Your task to perform on an android device: set an alarm Image 0: 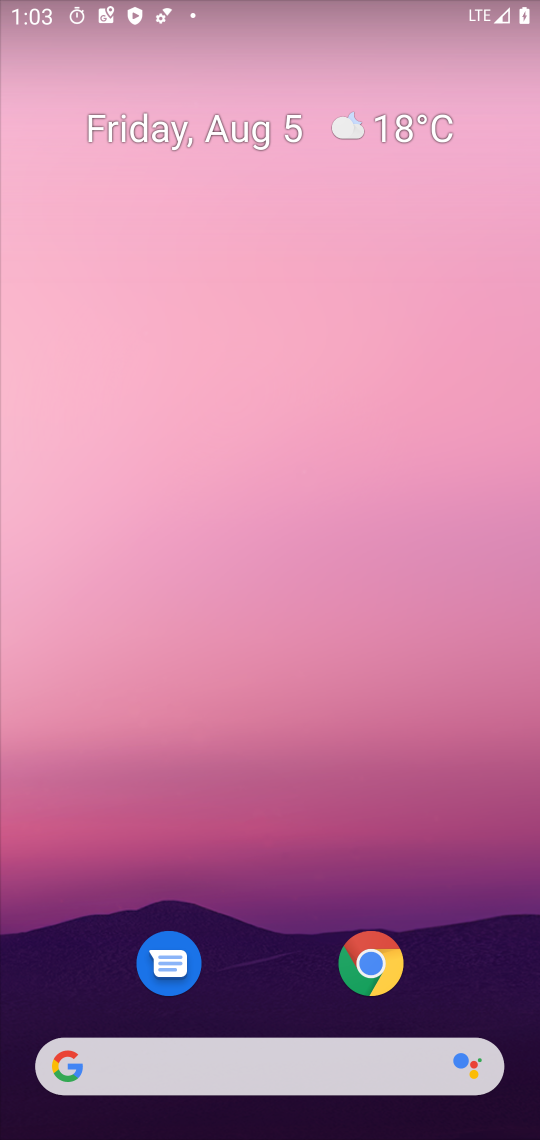
Step 0: drag from (248, 969) to (457, 0)
Your task to perform on an android device: set an alarm Image 1: 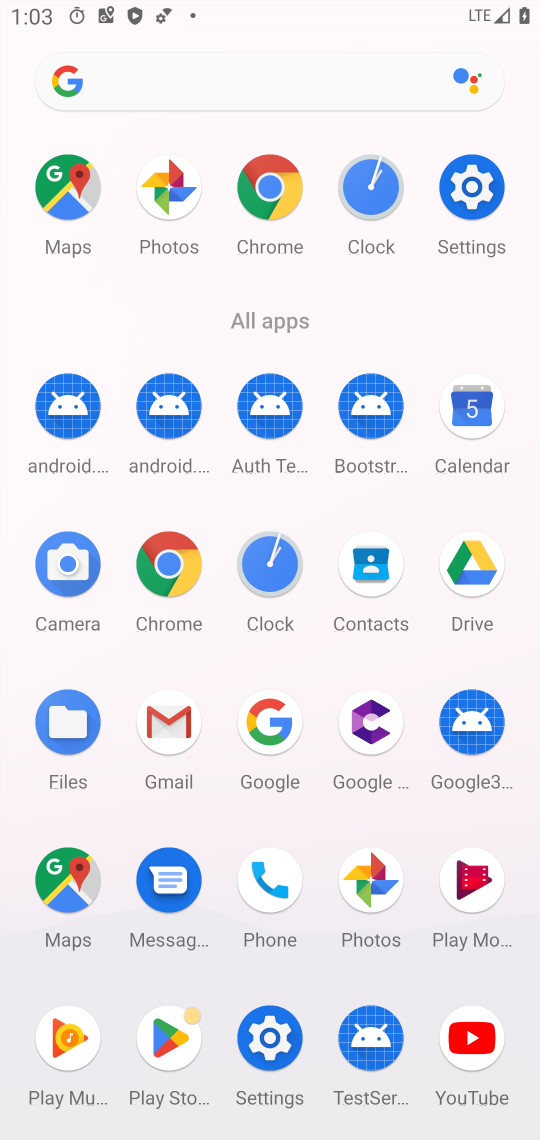
Step 1: press home button
Your task to perform on an android device: set an alarm Image 2: 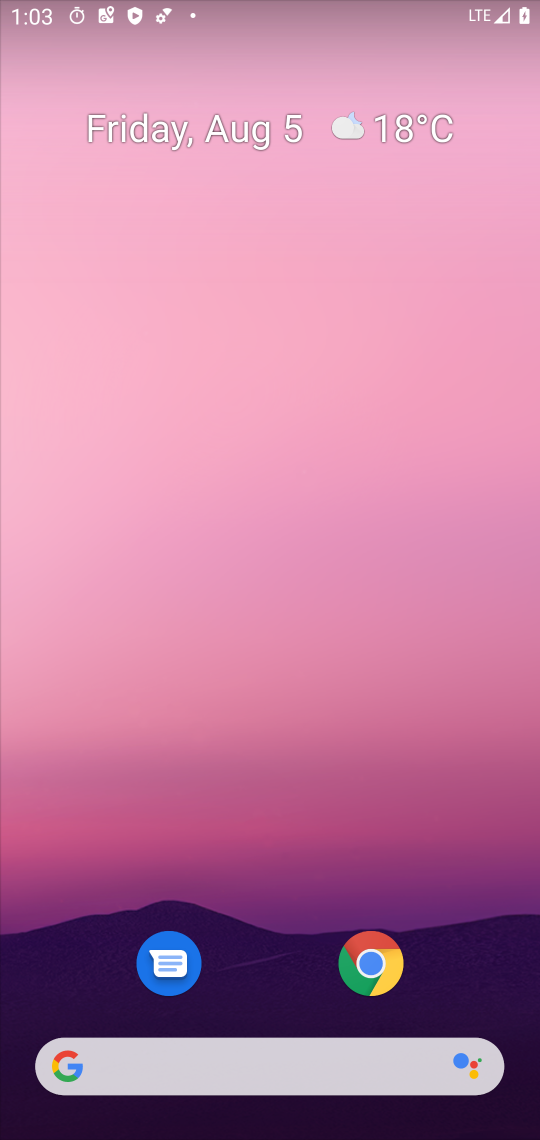
Step 2: drag from (316, 925) to (38, 550)
Your task to perform on an android device: set an alarm Image 3: 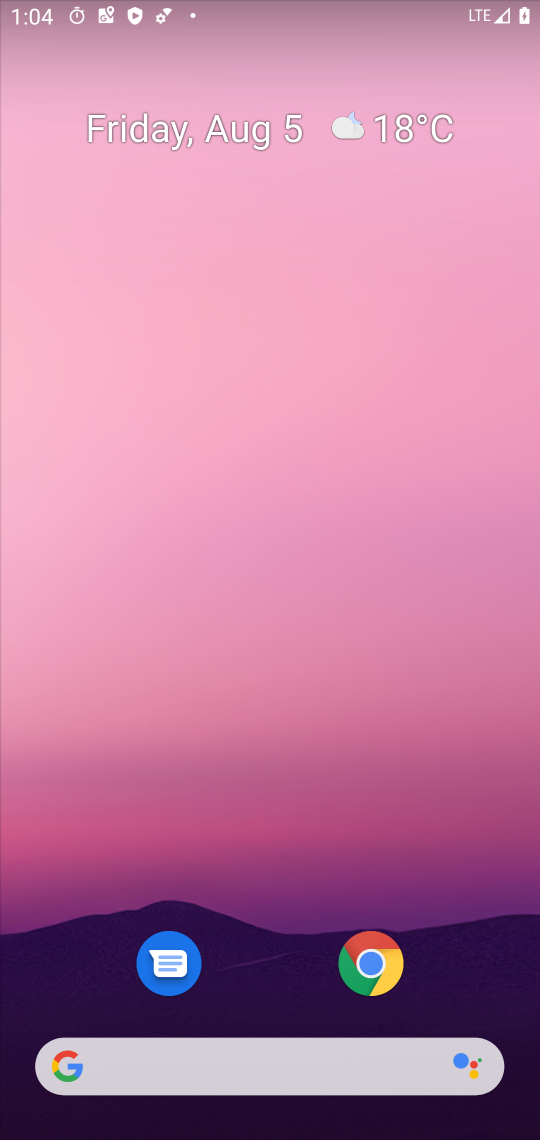
Step 3: drag from (335, 974) to (409, 19)
Your task to perform on an android device: set an alarm Image 4: 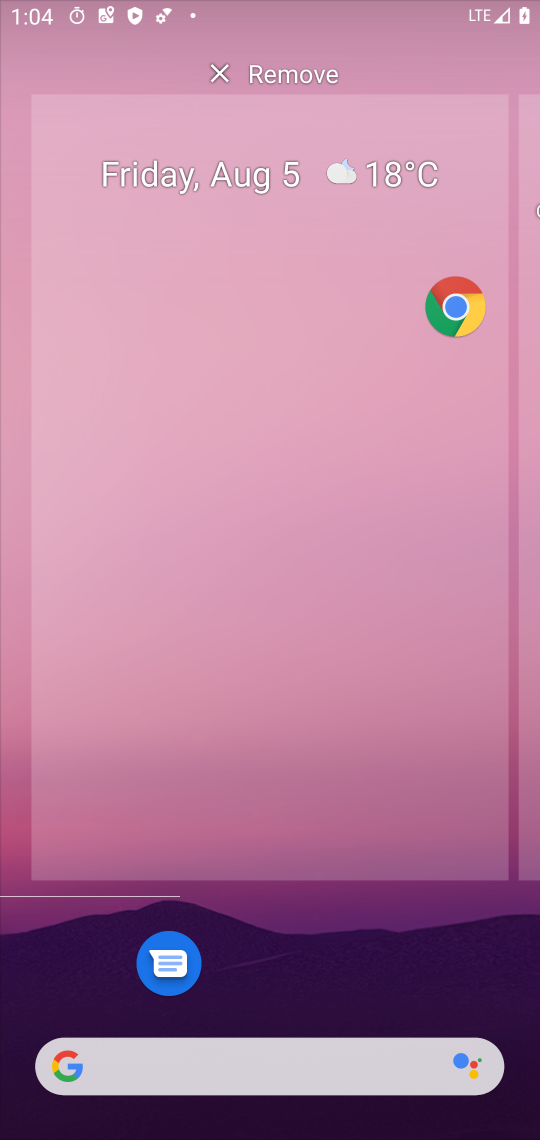
Step 4: click (351, 537)
Your task to perform on an android device: set an alarm Image 5: 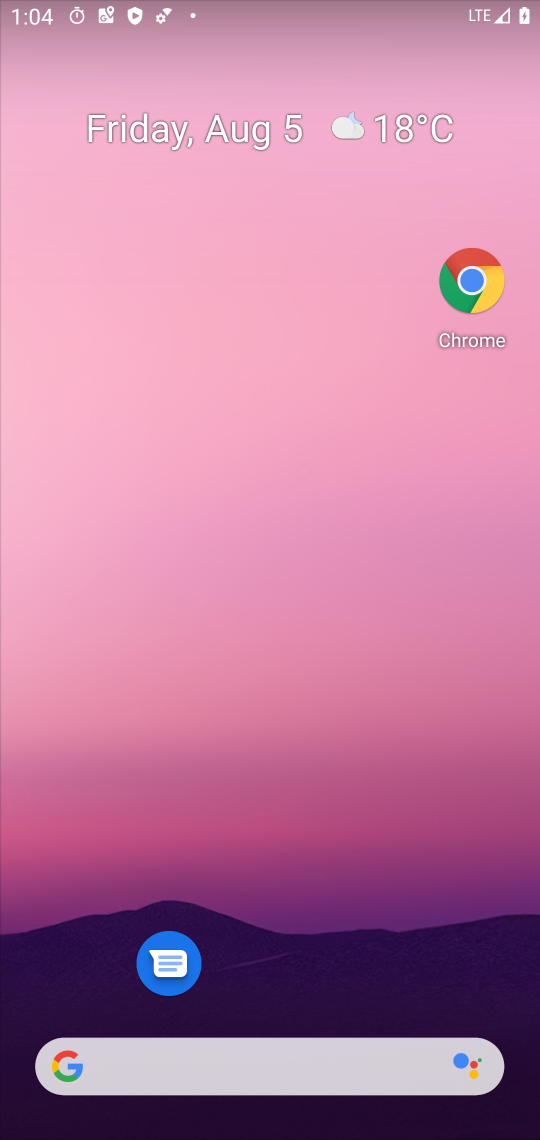
Step 5: drag from (324, 1041) to (378, 32)
Your task to perform on an android device: set an alarm Image 6: 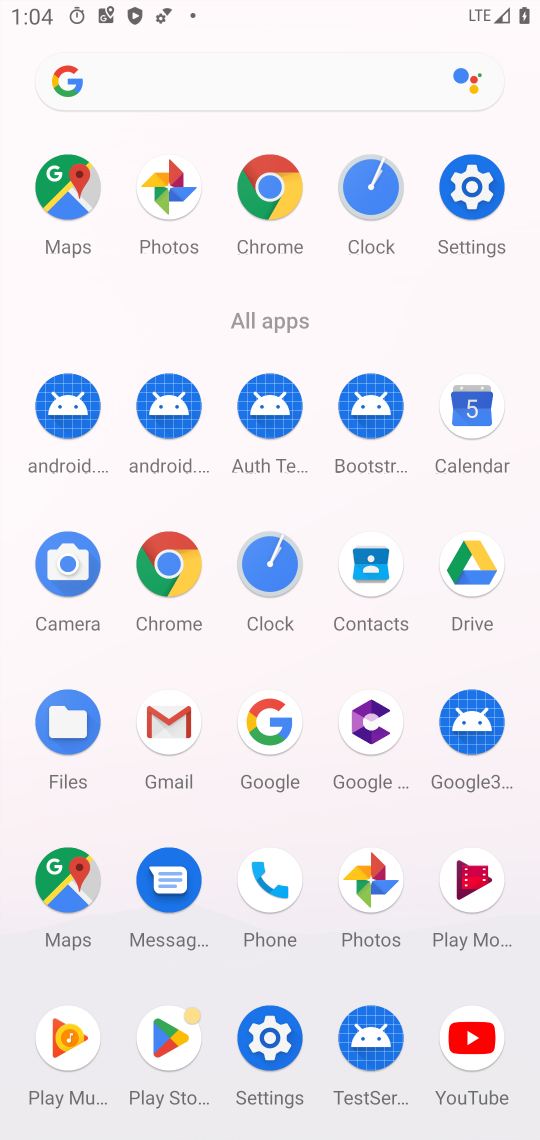
Step 6: click (366, 202)
Your task to perform on an android device: set an alarm Image 7: 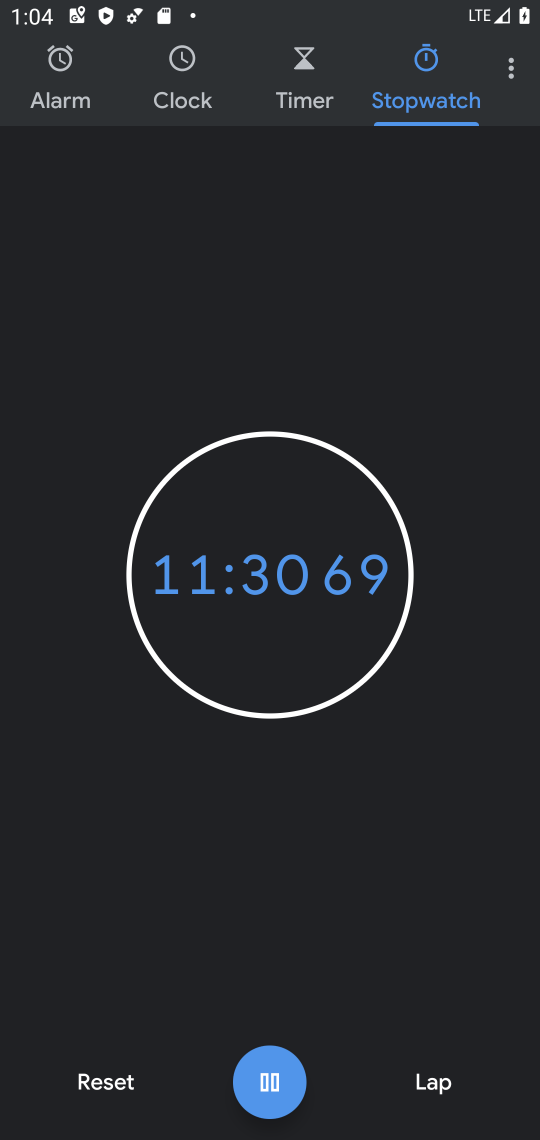
Step 7: click (84, 88)
Your task to perform on an android device: set an alarm Image 8: 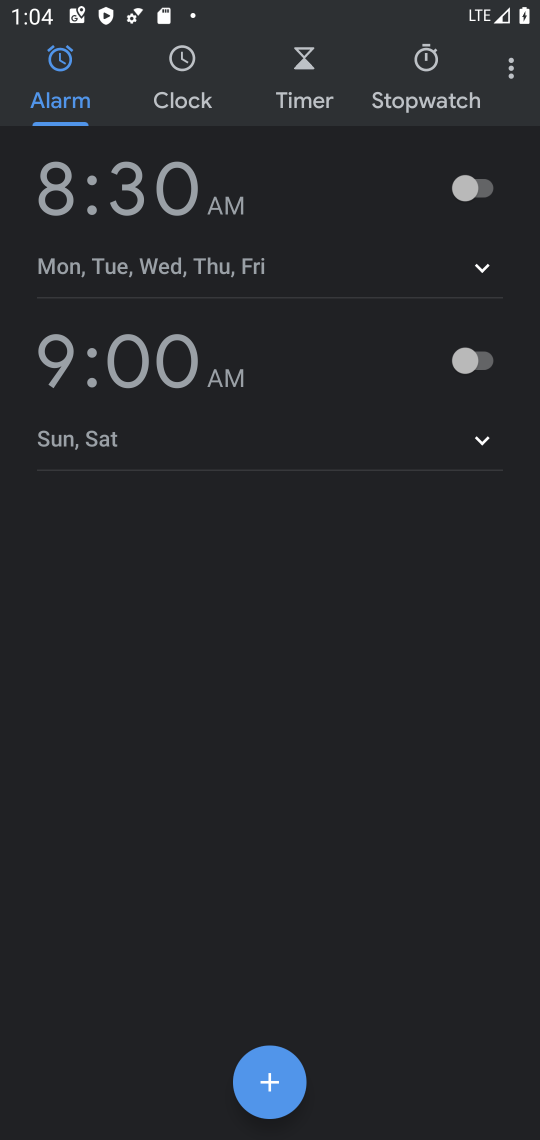
Step 8: click (473, 193)
Your task to perform on an android device: set an alarm Image 9: 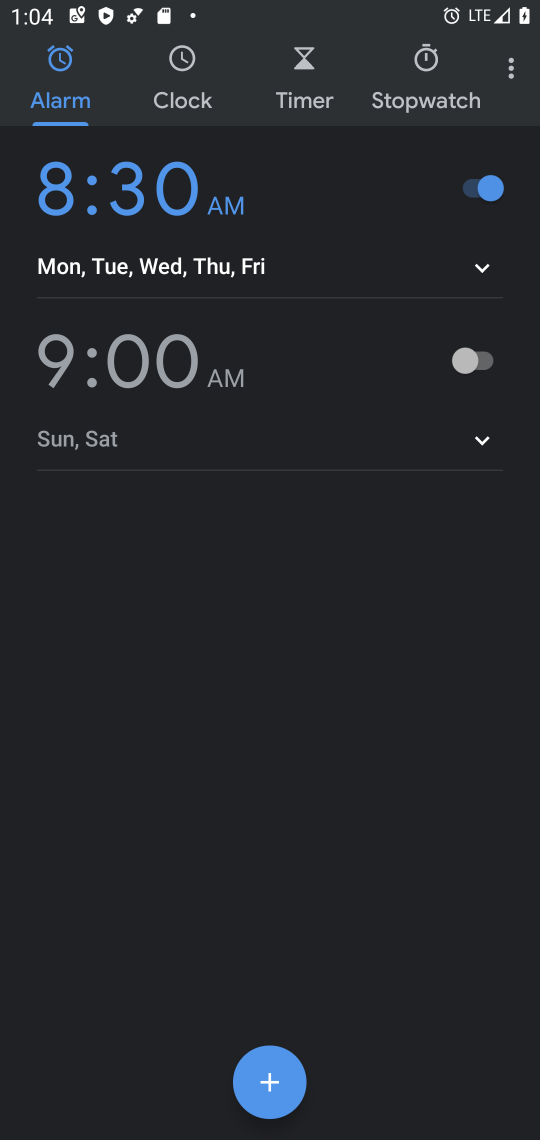
Step 9: task complete